Your task to perform on an android device: Show me popular games on the Play Store Image 0: 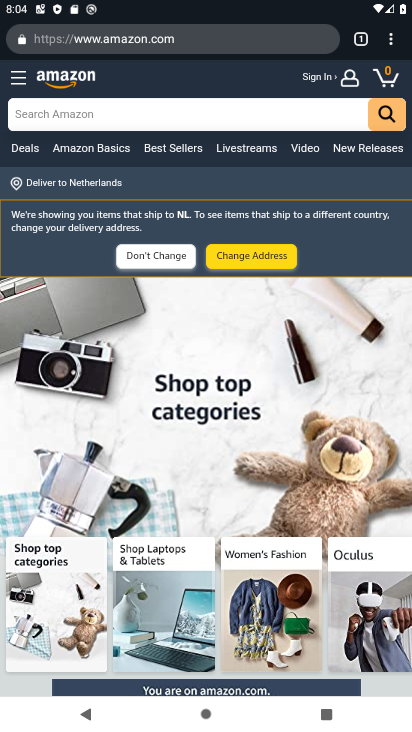
Step 0: press home button
Your task to perform on an android device: Show me popular games on the Play Store Image 1: 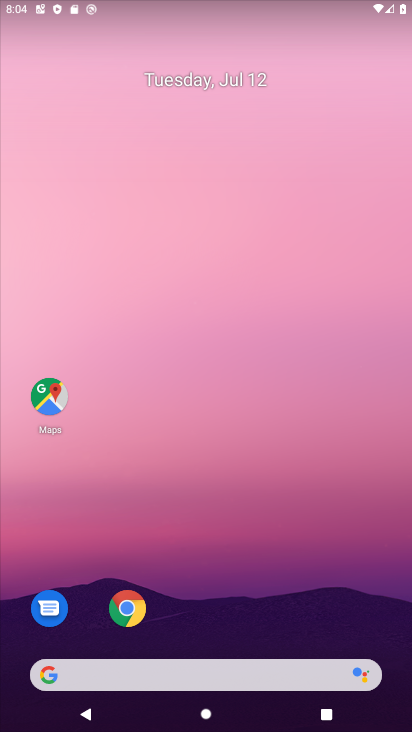
Step 1: drag from (236, 612) to (210, 94)
Your task to perform on an android device: Show me popular games on the Play Store Image 2: 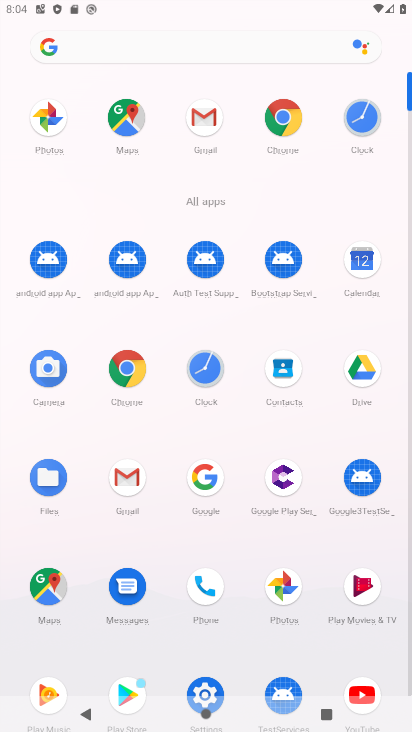
Step 2: click (121, 683)
Your task to perform on an android device: Show me popular games on the Play Store Image 3: 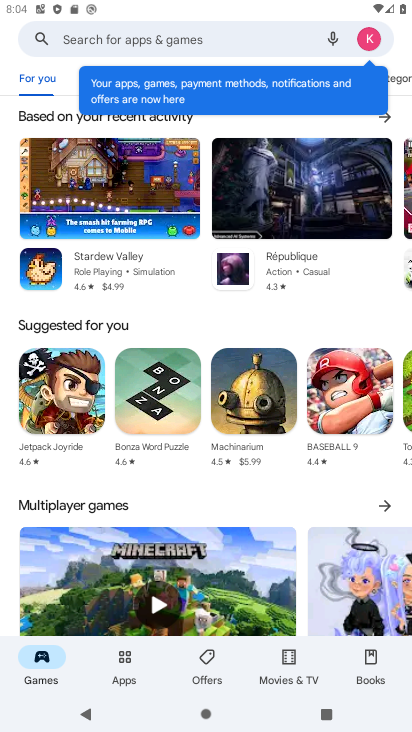
Step 3: click (121, 683)
Your task to perform on an android device: Show me popular games on the Play Store Image 4: 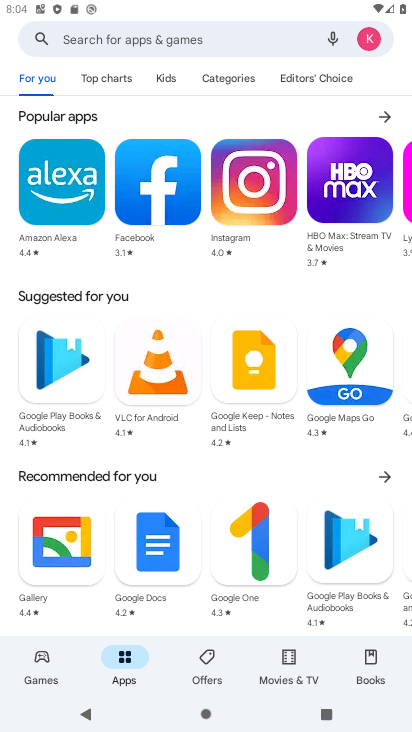
Step 4: click (54, 672)
Your task to perform on an android device: Show me popular games on the Play Store Image 5: 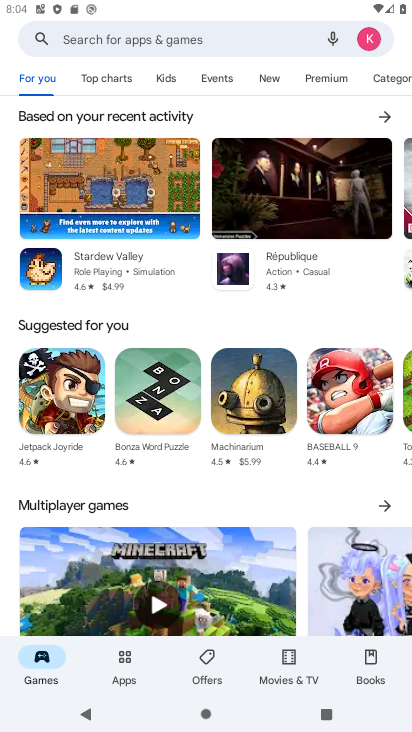
Step 5: click (97, 75)
Your task to perform on an android device: Show me popular games on the Play Store Image 6: 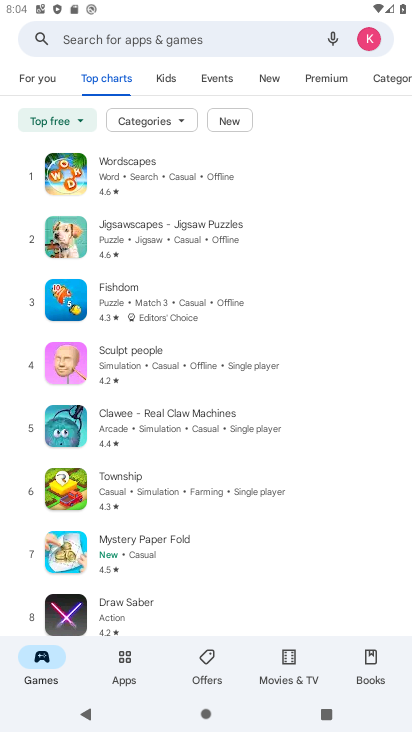
Step 6: task complete